Your task to perform on an android device: Search for hotels in San Francisco Image 0: 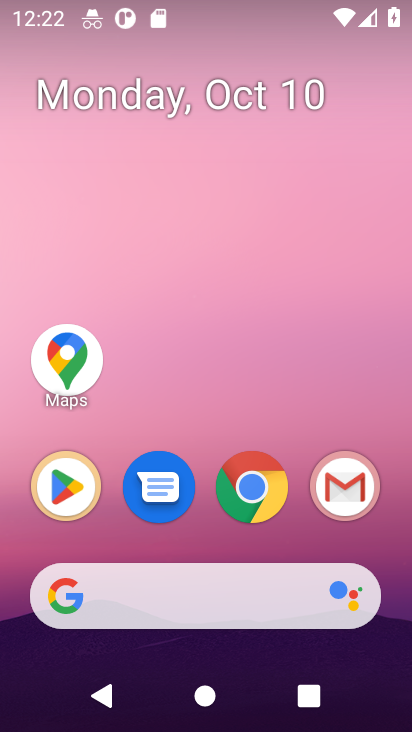
Step 0: click (255, 487)
Your task to perform on an android device: Search for hotels in San Francisco Image 1: 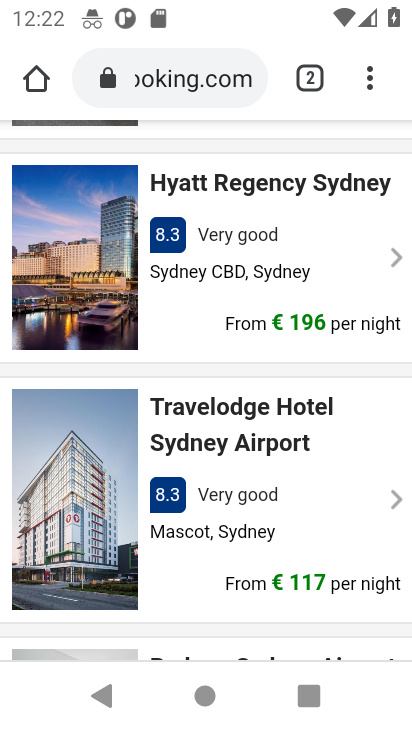
Step 1: click (188, 76)
Your task to perform on an android device: Search for hotels in San Francisco Image 2: 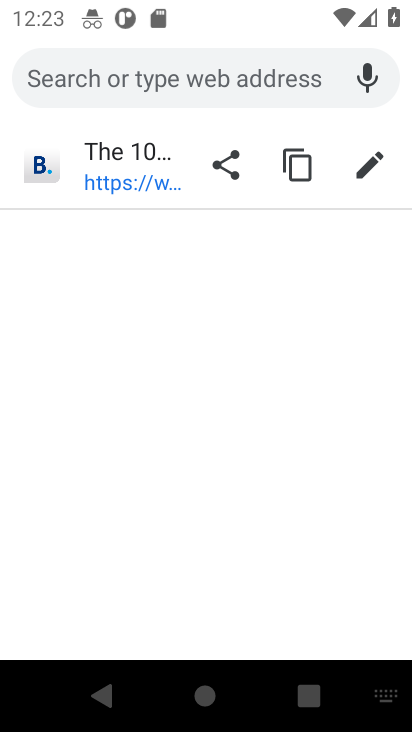
Step 2: type "hotels in san francisco"
Your task to perform on an android device: Search for hotels in San Francisco Image 3: 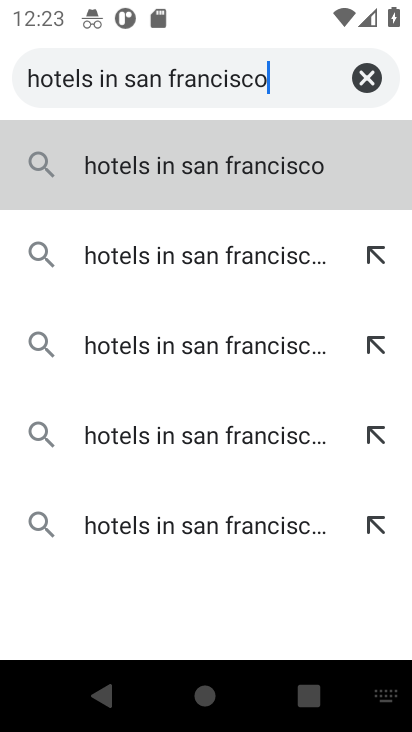
Step 3: type ""
Your task to perform on an android device: Search for hotels in San Francisco Image 4: 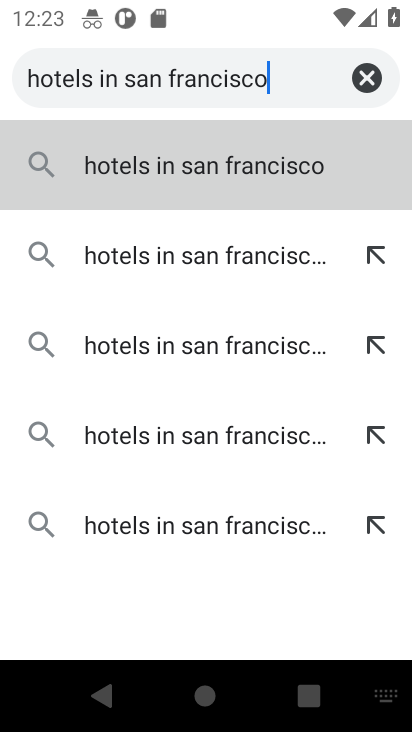
Step 4: press enter
Your task to perform on an android device: Search for hotels in San Francisco Image 5: 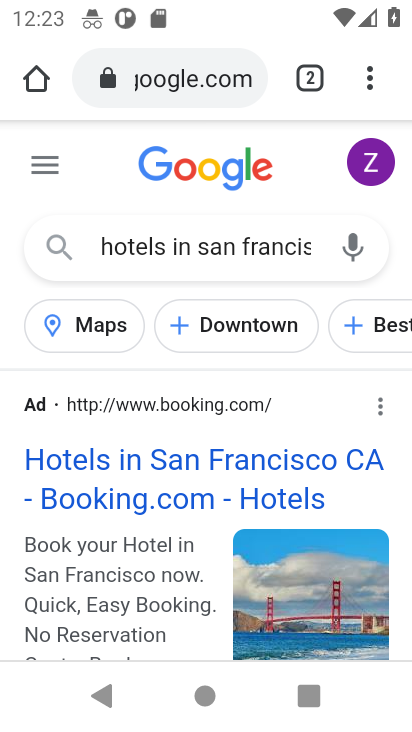
Step 5: click (157, 500)
Your task to perform on an android device: Search for hotels in San Francisco Image 6: 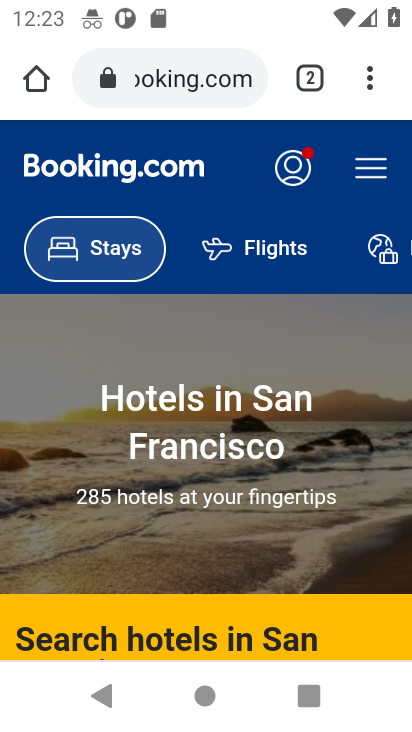
Step 6: task complete